Your task to perform on an android device: Search for "asus rog" on target.com, select the first entry, add it to the cart, then select checkout. Image 0: 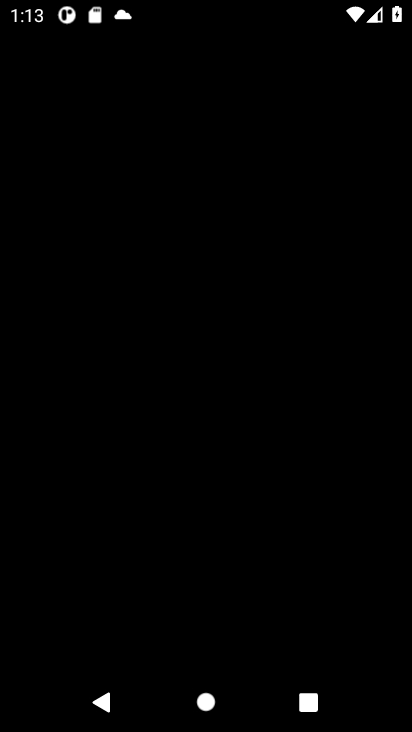
Step 0: press home button
Your task to perform on an android device: Search for "asus rog" on target.com, select the first entry, add it to the cart, then select checkout. Image 1: 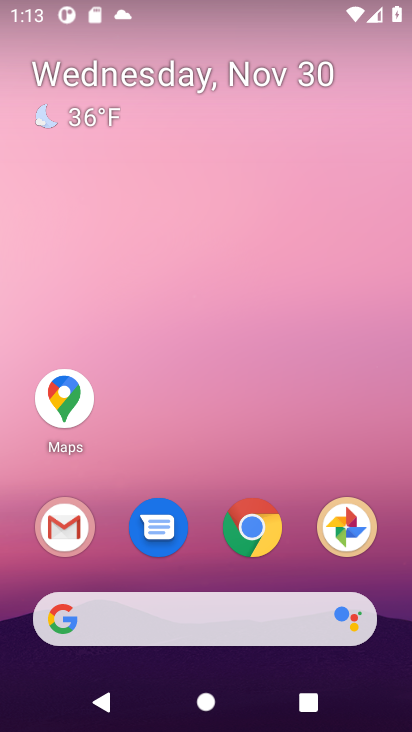
Step 1: click (253, 527)
Your task to perform on an android device: Search for "asus rog" on target.com, select the first entry, add it to the cart, then select checkout. Image 2: 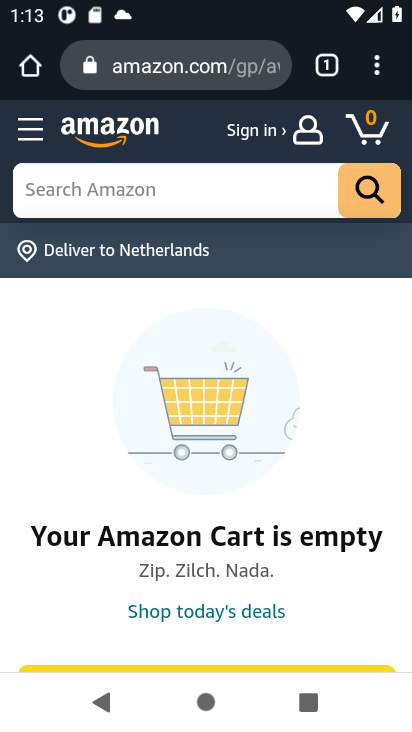
Step 2: click (165, 62)
Your task to perform on an android device: Search for "asus rog" on target.com, select the first entry, add it to the cart, then select checkout. Image 3: 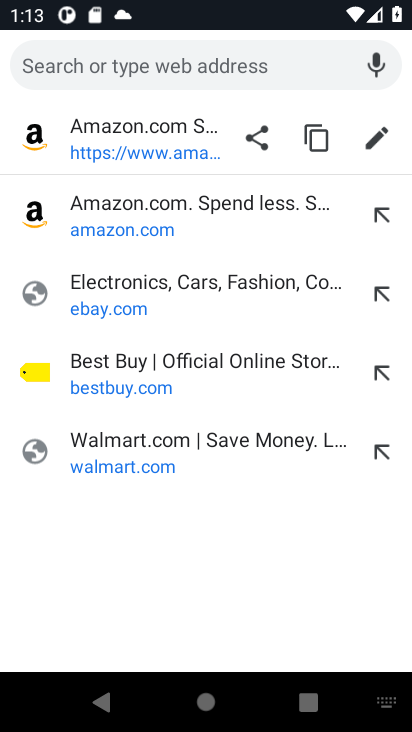
Step 3: type "target"
Your task to perform on an android device: Search for "asus rog" on target.com, select the first entry, add it to the cart, then select checkout. Image 4: 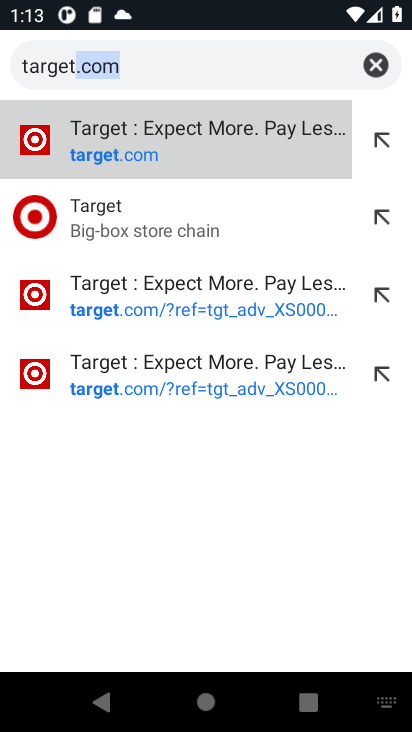
Step 4: click (118, 209)
Your task to perform on an android device: Search for "asus rog" on target.com, select the first entry, add it to the cart, then select checkout. Image 5: 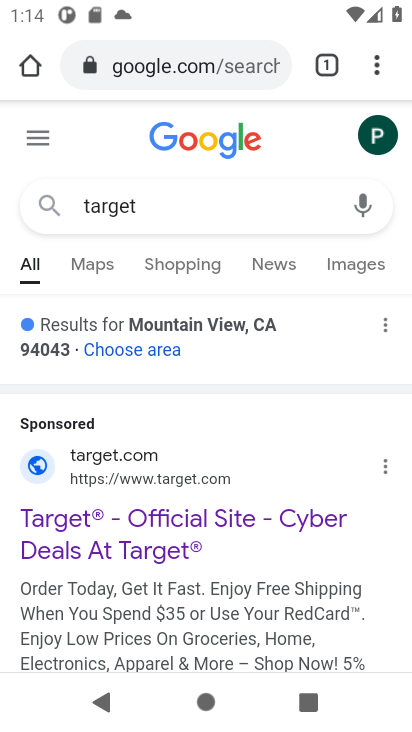
Step 5: click (91, 521)
Your task to perform on an android device: Search for "asus rog" on target.com, select the first entry, add it to the cart, then select checkout. Image 6: 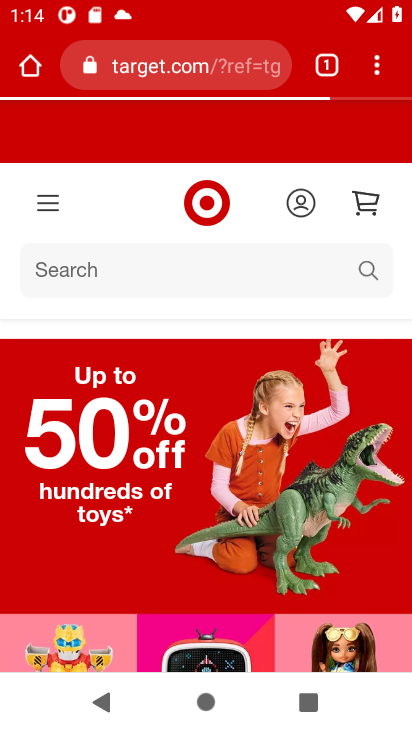
Step 6: click (81, 260)
Your task to perform on an android device: Search for "asus rog" on target.com, select the first entry, add it to the cart, then select checkout. Image 7: 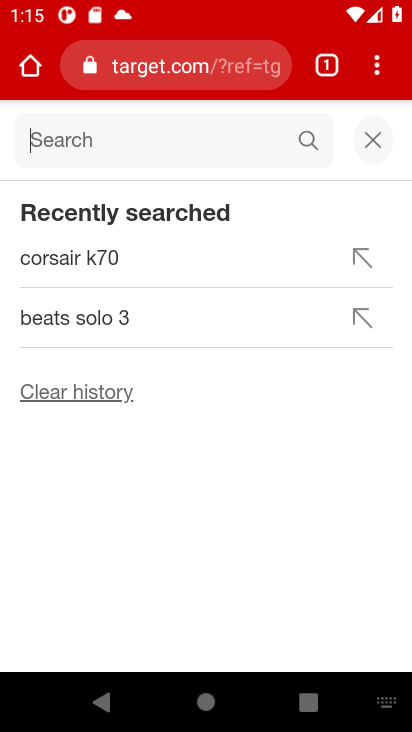
Step 7: type "asus rog"
Your task to perform on an android device: Search for "asus rog" on target.com, select the first entry, add it to the cart, then select checkout. Image 8: 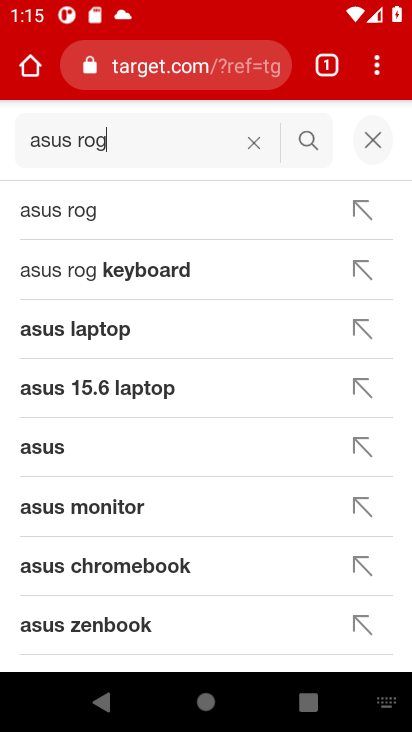
Step 8: click (307, 150)
Your task to perform on an android device: Search for "asus rog" on target.com, select the first entry, add it to the cart, then select checkout. Image 9: 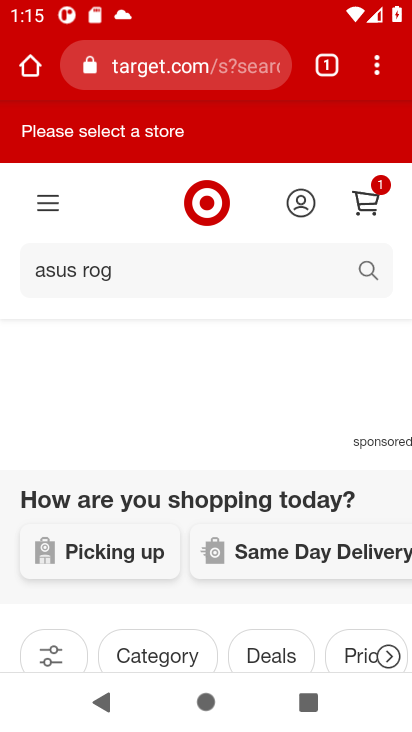
Step 9: drag from (234, 596) to (221, 72)
Your task to perform on an android device: Search for "asus rog" on target.com, select the first entry, add it to the cart, then select checkout. Image 10: 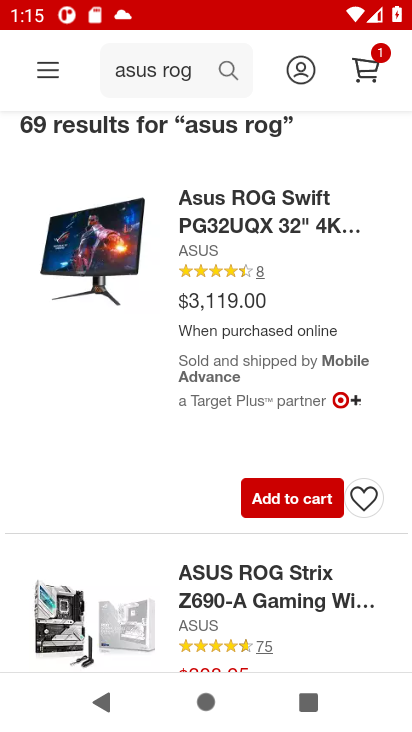
Step 10: click (215, 239)
Your task to perform on an android device: Search for "asus rog" on target.com, select the first entry, add it to the cart, then select checkout. Image 11: 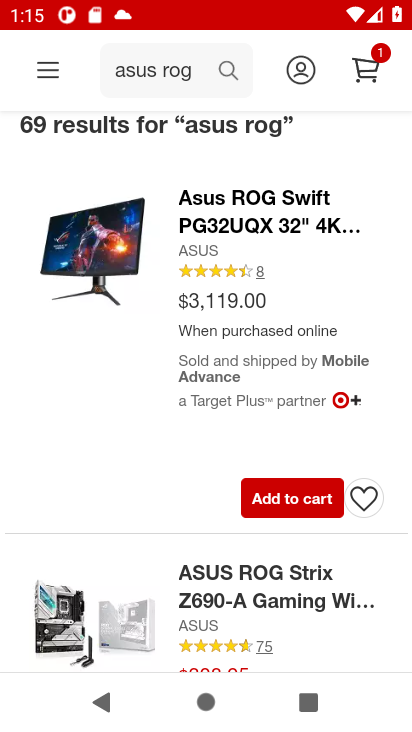
Step 11: click (297, 503)
Your task to perform on an android device: Search for "asus rog" on target.com, select the first entry, add it to the cart, then select checkout. Image 12: 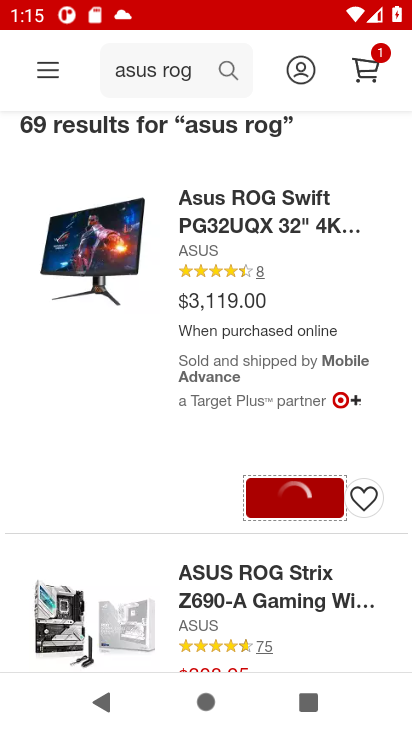
Step 12: task complete